Your task to perform on an android device: check the backup settings in the google photos Image 0: 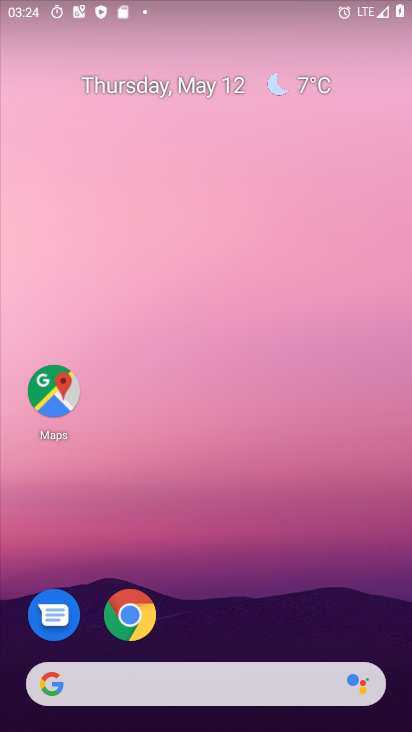
Step 0: drag from (256, 677) to (216, 221)
Your task to perform on an android device: check the backup settings in the google photos Image 1: 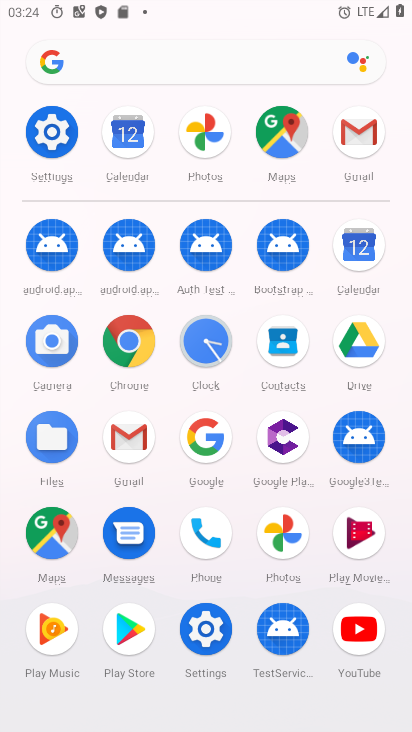
Step 1: click (302, 546)
Your task to perform on an android device: check the backup settings in the google photos Image 2: 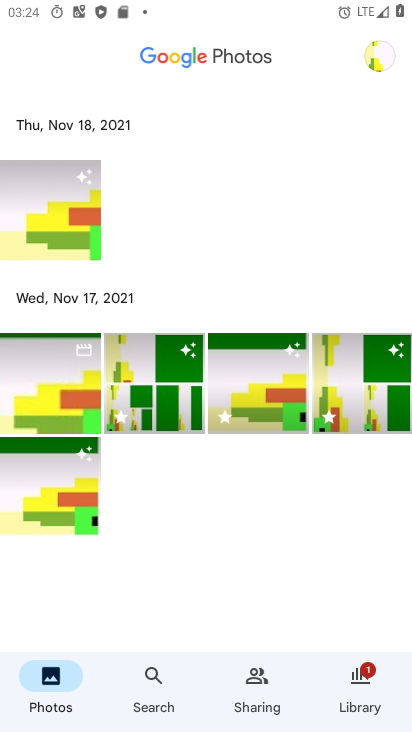
Step 2: click (379, 49)
Your task to perform on an android device: check the backup settings in the google photos Image 3: 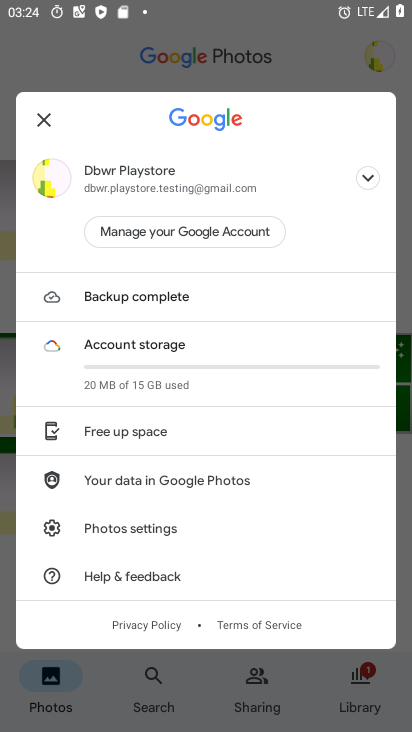
Step 3: click (117, 520)
Your task to perform on an android device: check the backup settings in the google photos Image 4: 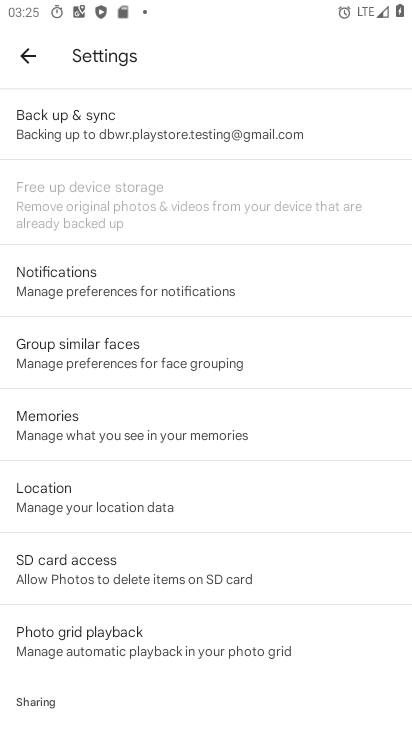
Step 4: click (96, 120)
Your task to perform on an android device: check the backup settings in the google photos Image 5: 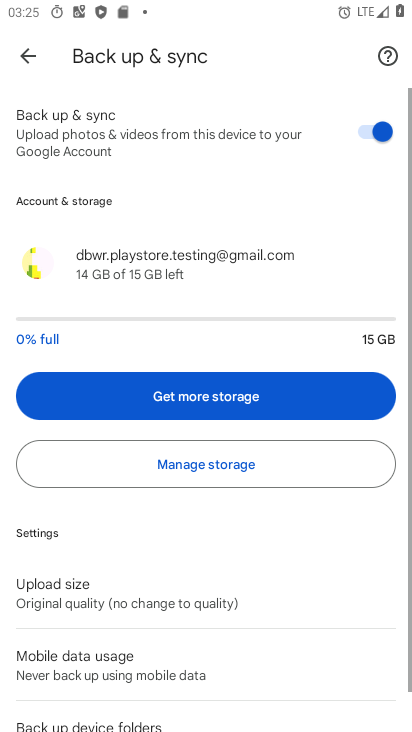
Step 5: task complete